Your task to perform on an android device: Search for seafood restaurants on Google Maps Image 0: 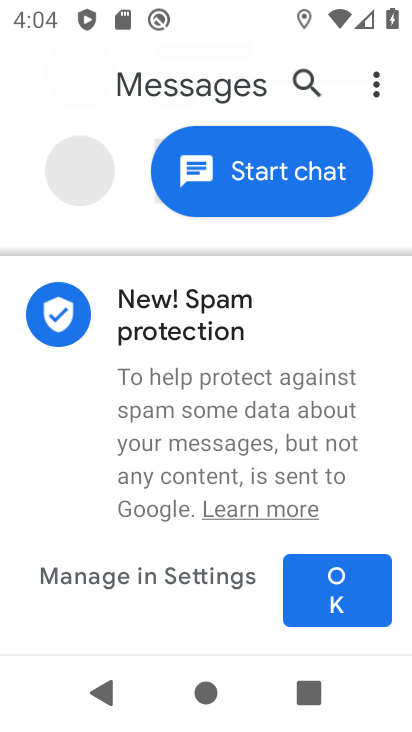
Step 0: drag from (197, 541) to (184, 172)
Your task to perform on an android device: Search for seafood restaurants on Google Maps Image 1: 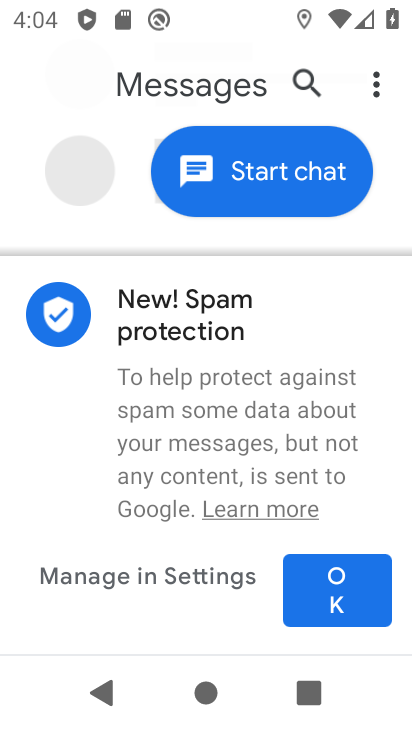
Step 1: press home button
Your task to perform on an android device: Search for seafood restaurants on Google Maps Image 2: 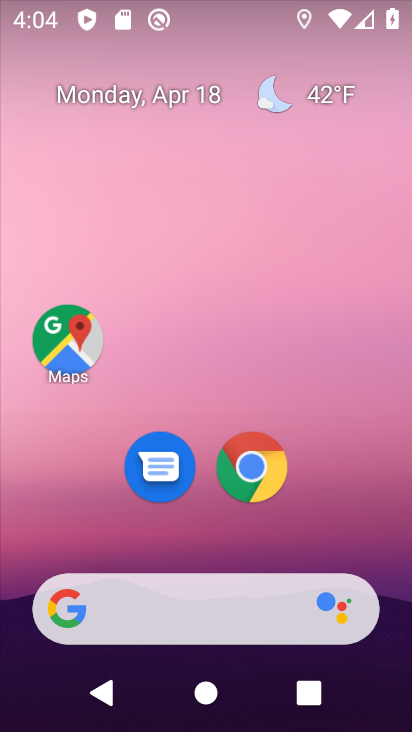
Step 2: click (66, 353)
Your task to perform on an android device: Search for seafood restaurants on Google Maps Image 3: 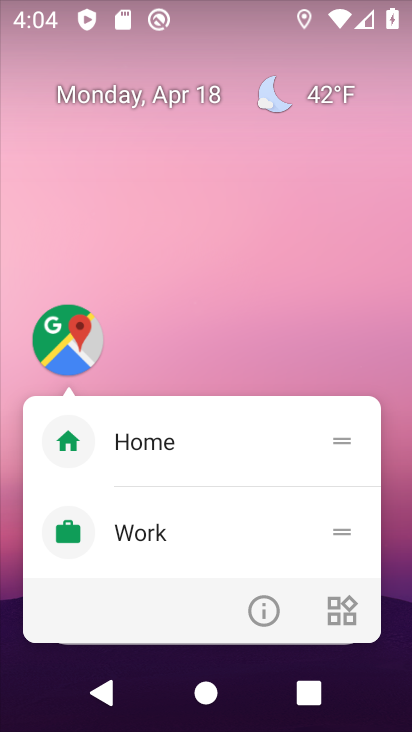
Step 3: click (66, 326)
Your task to perform on an android device: Search for seafood restaurants on Google Maps Image 4: 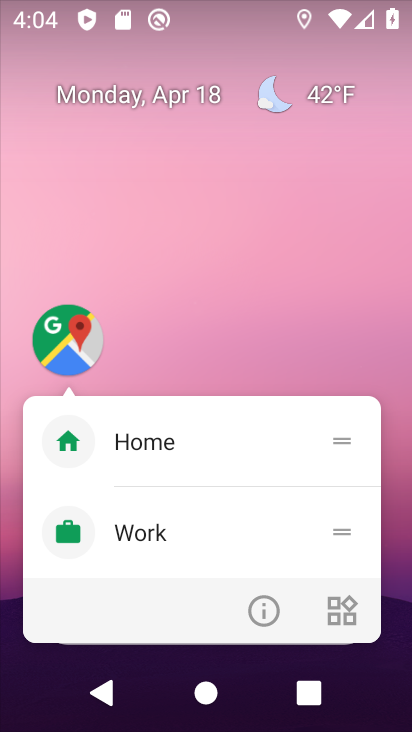
Step 4: click (66, 326)
Your task to perform on an android device: Search for seafood restaurants on Google Maps Image 5: 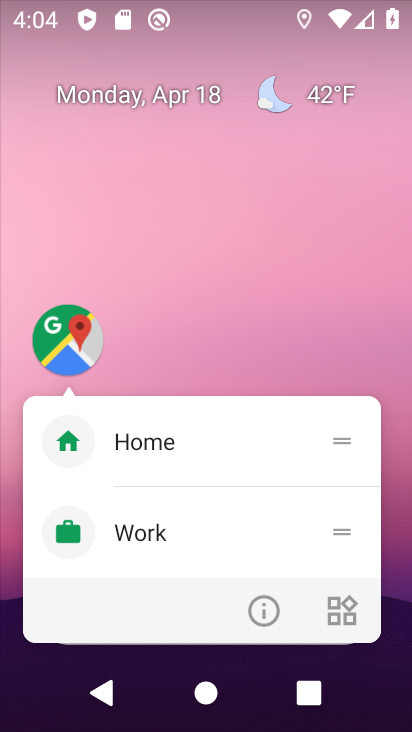
Step 5: click (66, 326)
Your task to perform on an android device: Search for seafood restaurants on Google Maps Image 6: 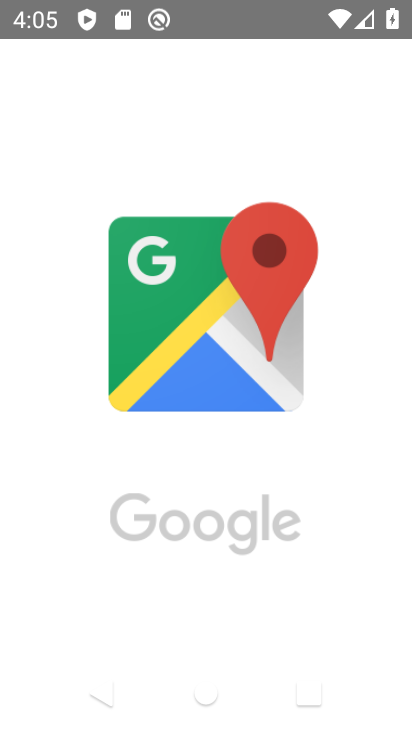
Step 6: task complete